Your task to perform on an android device: change notifications settings Image 0: 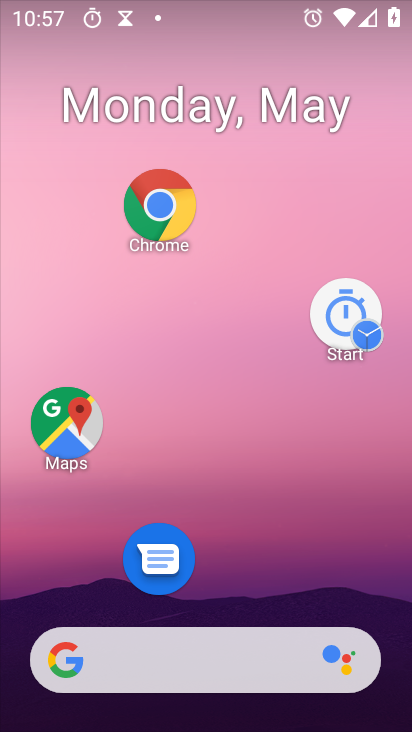
Step 0: click (172, 226)
Your task to perform on an android device: change notifications settings Image 1: 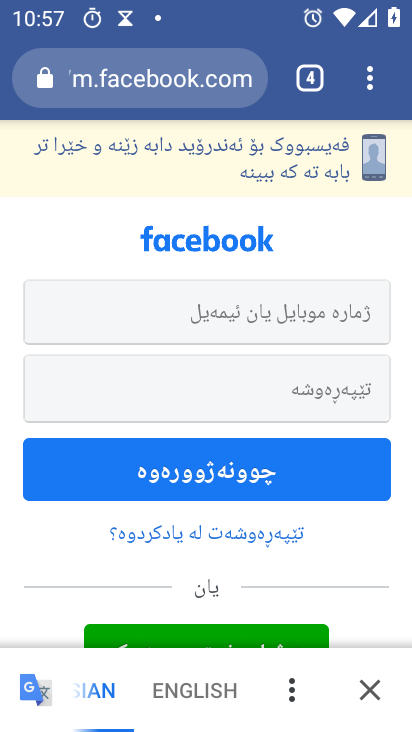
Step 1: press back button
Your task to perform on an android device: change notifications settings Image 2: 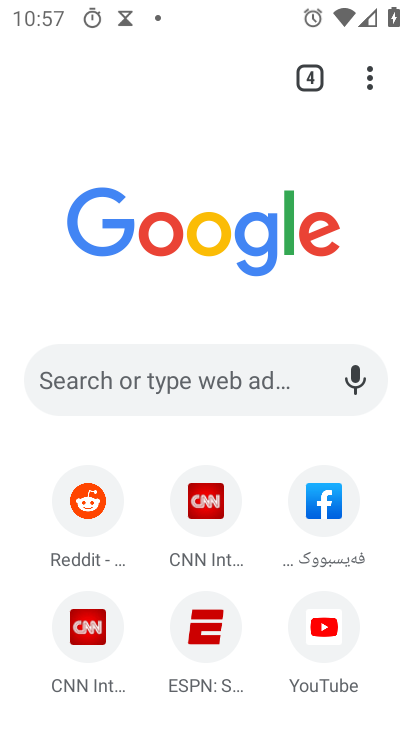
Step 2: click (365, 79)
Your task to perform on an android device: change notifications settings Image 3: 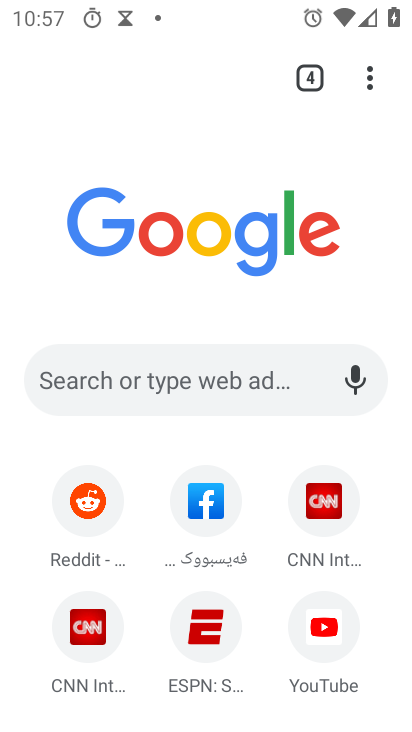
Step 3: drag from (369, 80) to (73, 614)
Your task to perform on an android device: change notifications settings Image 4: 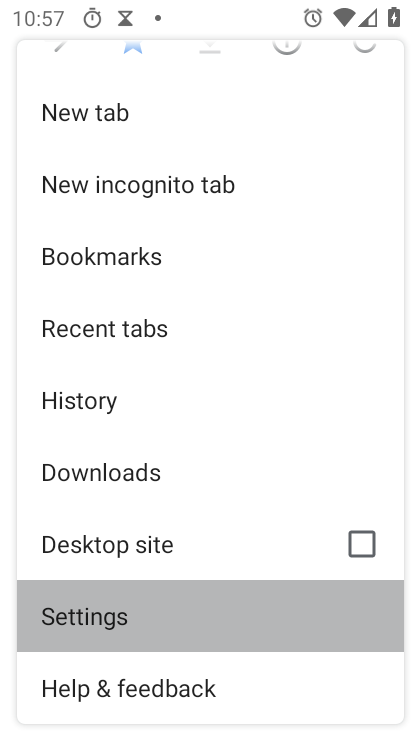
Step 4: click (78, 612)
Your task to perform on an android device: change notifications settings Image 5: 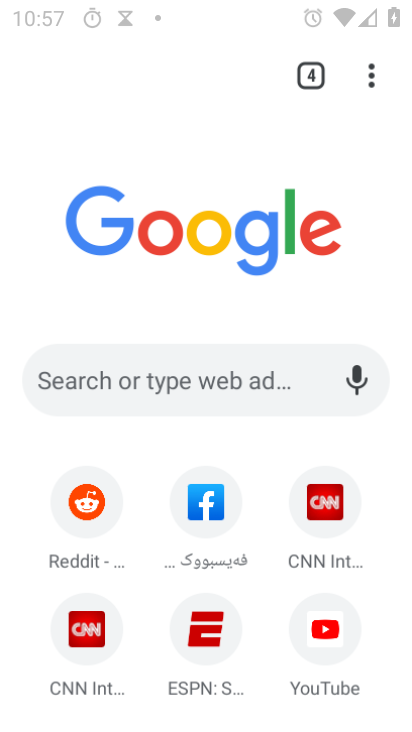
Step 5: click (82, 614)
Your task to perform on an android device: change notifications settings Image 6: 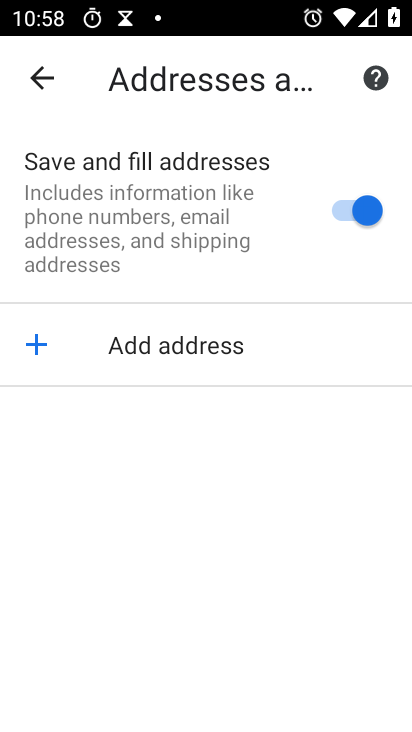
Step 6: click (37, 75)
Your task to perform on an android device: change notifications settings Image 7: 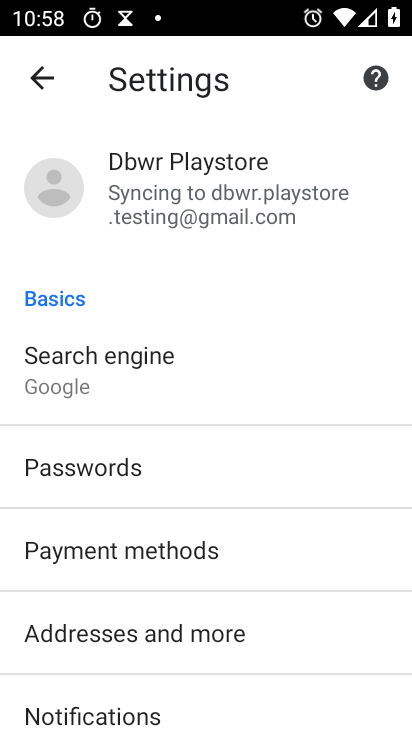
Step 7: drag from (148, 565) to (84, 147)
Your task to perform on an android device: change notifications settings Image 8: 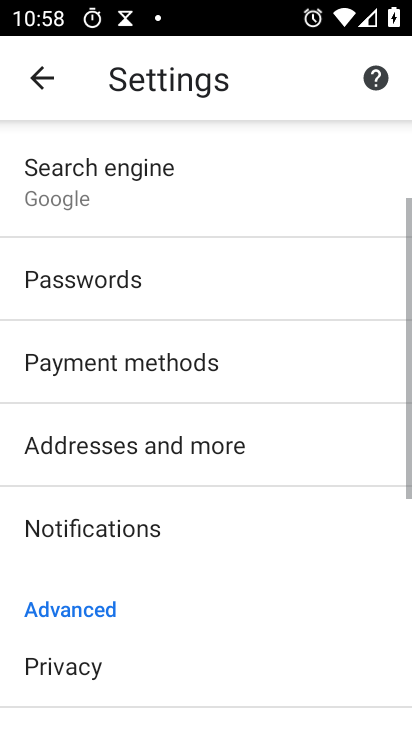
Step 8: drag from (177, 478) to (181, 46)
Your task to perform on an android device: change notifications settings Image 9: 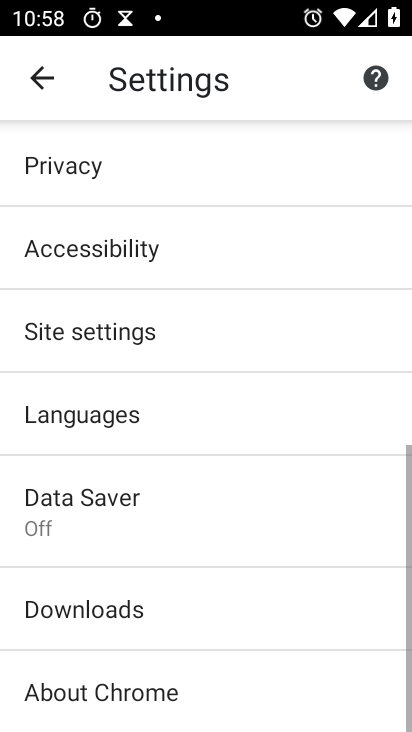
Step 9: drag from (200, 479) to (212, 153)
Your task to perform on an android device: change notifications settings Image 10: 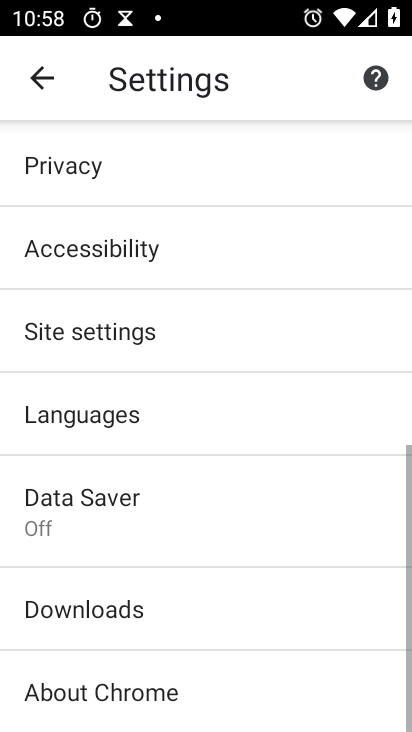
Step 10: drag from (189, 440) to (168, 60)
Your task to perform on an android device: change notifications settings Image 11: 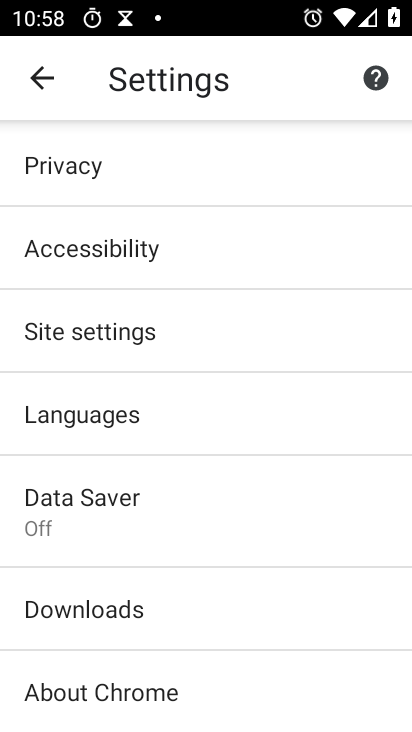
Step 11: click (70, 335)
Your task to perform on an android device: change notifications settings Image 12: 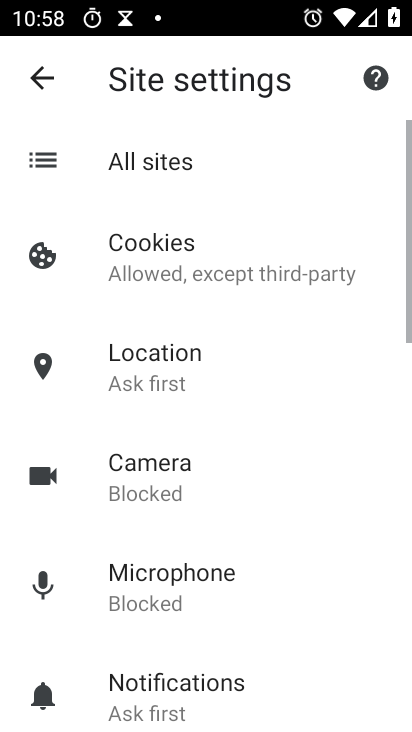
Step 12: click (39, 83)
Your task to perform on an android device: change notifications settings Image 13: 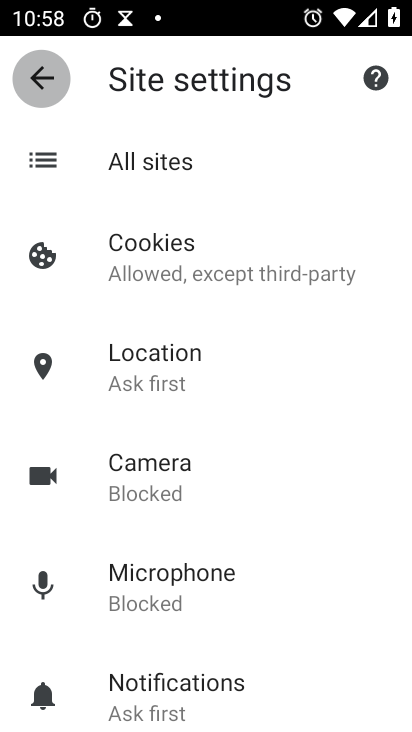
Step 13: click (39, 83)
Your task to perform on an android device: change notifications settings Image 14: 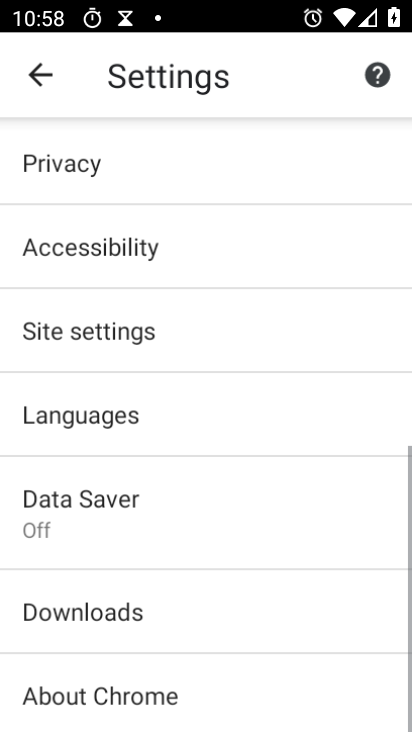
Step 14: click (39, 83)
Your task to perform on an android device: change notifications settings Image 15: 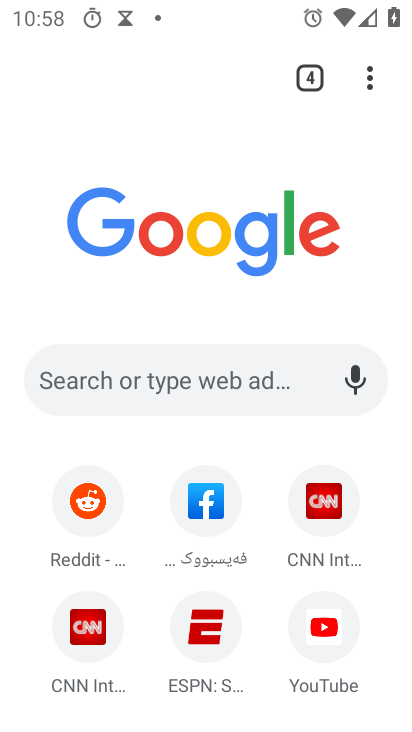
Step 15: press home button
Your task to perform on an android device: change notifications settings Image 16: 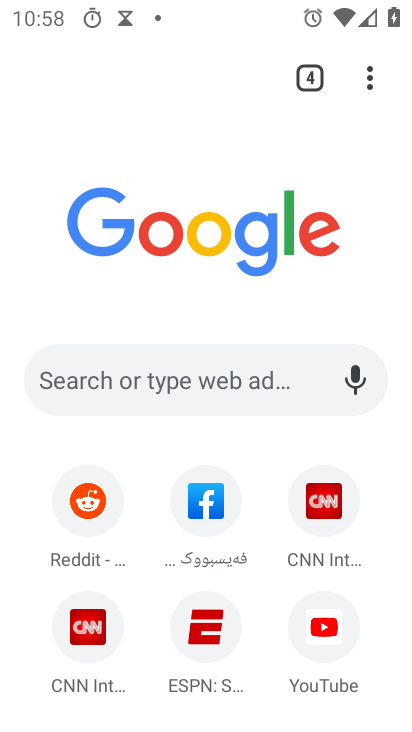
Step 16: press home button
Your task to perform on an android device: change notifications settings Image 17: 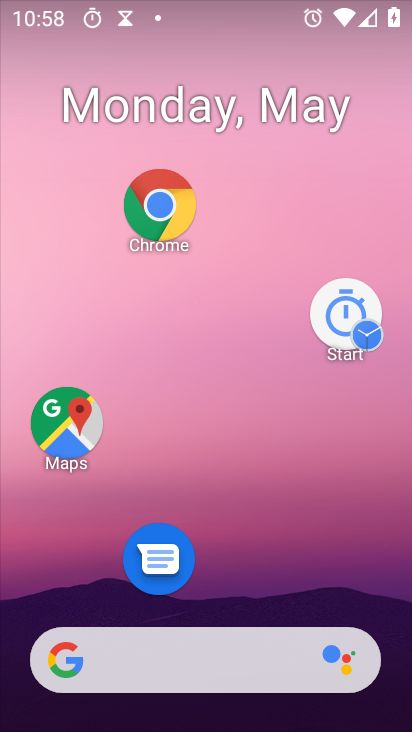
Step 17: drag from (233, 692) to (164, 152)
Your task to perform on an android device: change notifications settings Image 18: 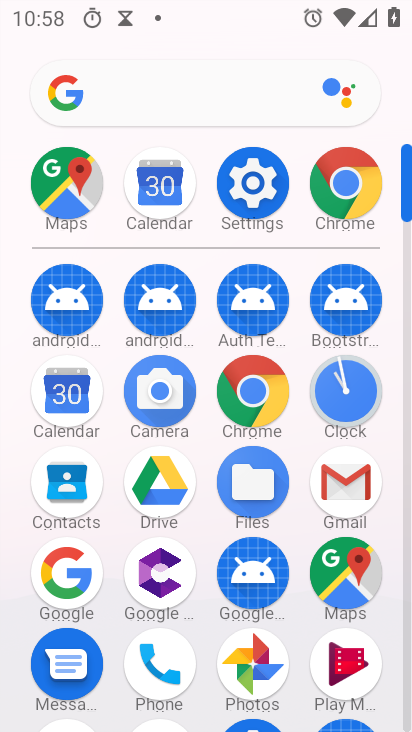
Step 18: click (246, 178)
Your task to perform on an android device: change notifications settings Image 19: 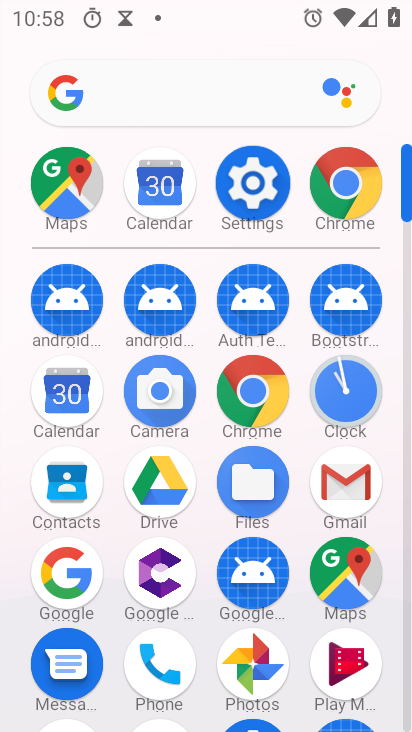
Step 19: click (258, 172)
Your task to perform on an android device: change notifications settings Image 20: 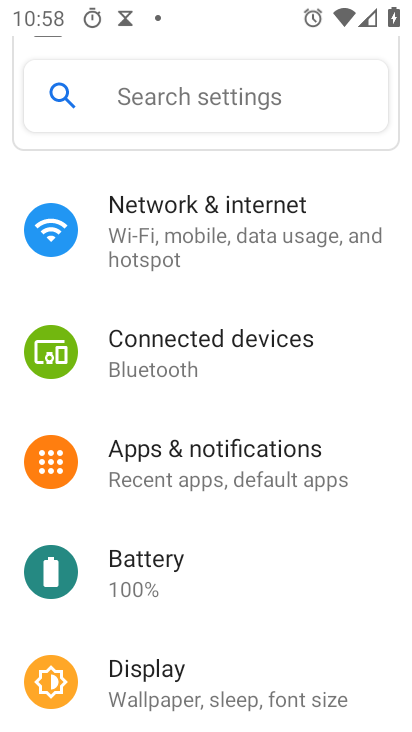
Step 20: click (198, 465)
Your task to perform on an android device: change notifications settings Image 21: 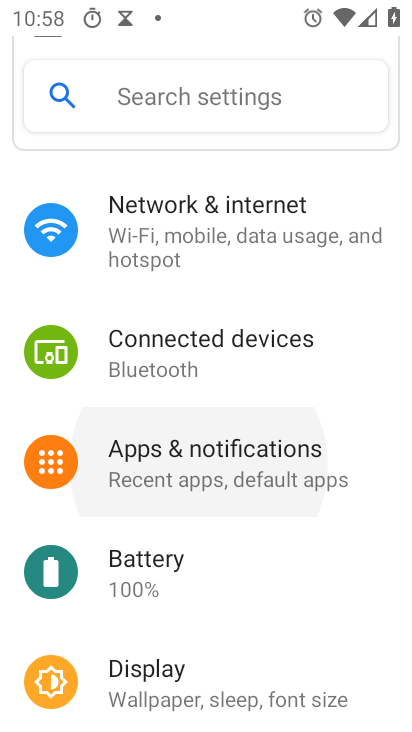
Step 21: click (199, 465)
Your task to perform on an android device: change notifications settings Image 22: 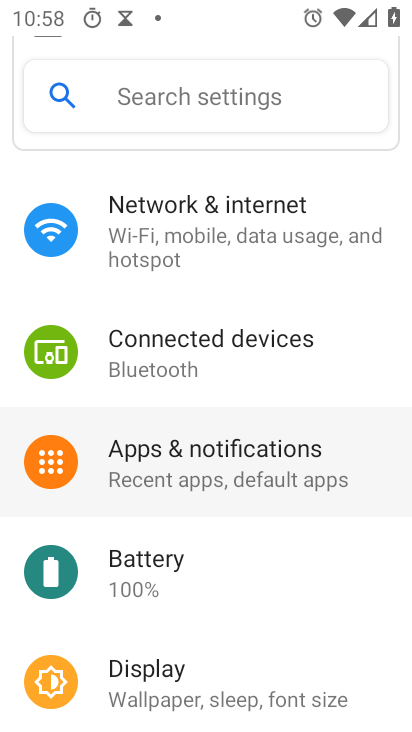
Step 22: click (200, 465)
Your task to perform on an android device: change notifications settings Image 23: 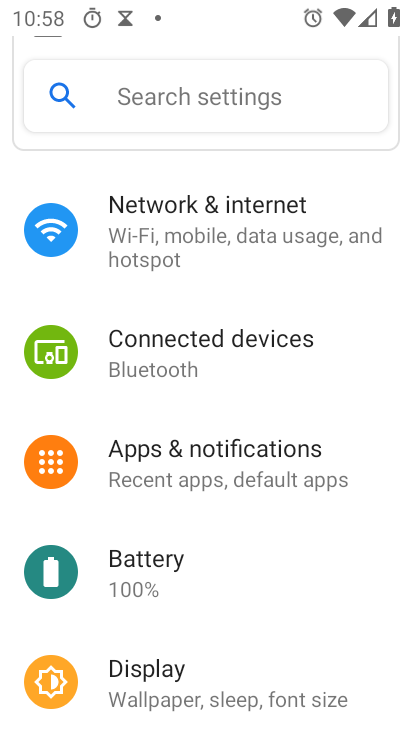
Step 23: click (221, 464)
Your task to perform on an android device: change notifications settings Image 24: 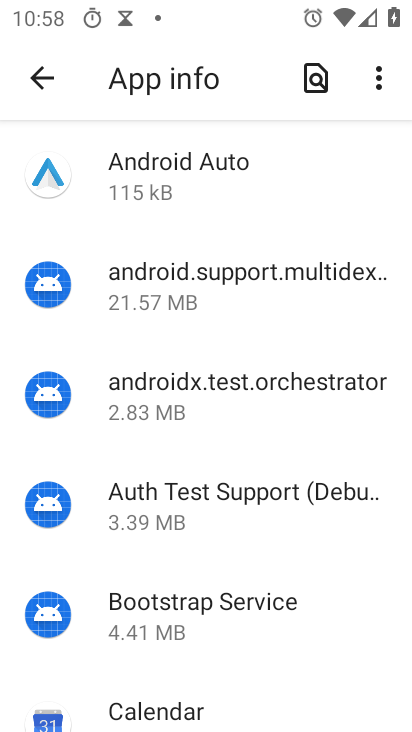
Step 24: click (43, 70)
Your task to perform on an android device: change notifications settings Image 25: 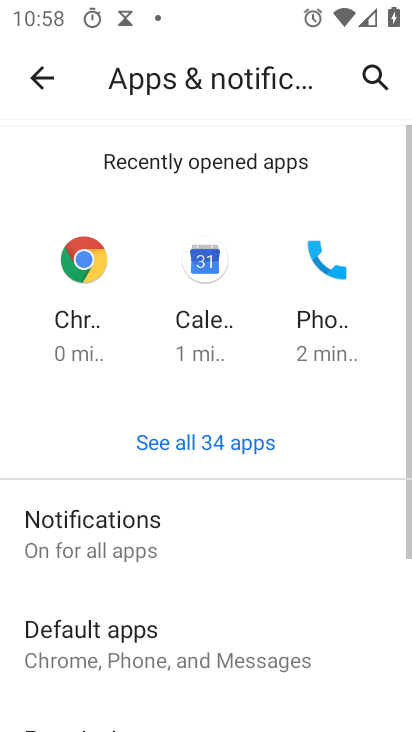
Step 25: click (112, 539)
Your task to perform on an android device: change notifications settings Image 26: 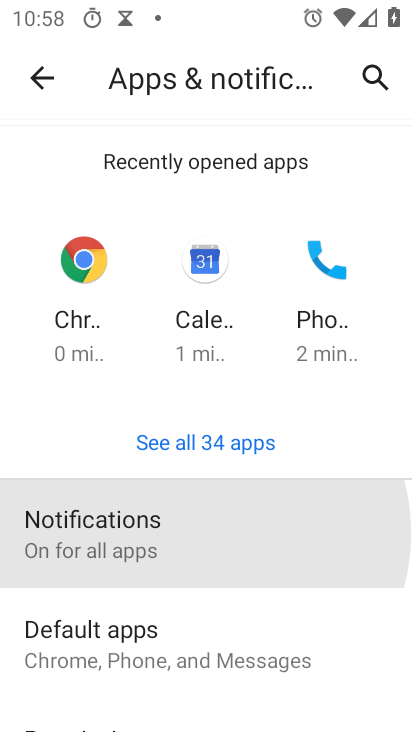
Step 26: click (123, 532)
Your task to perform on an android device: change notifications settings Image 27: 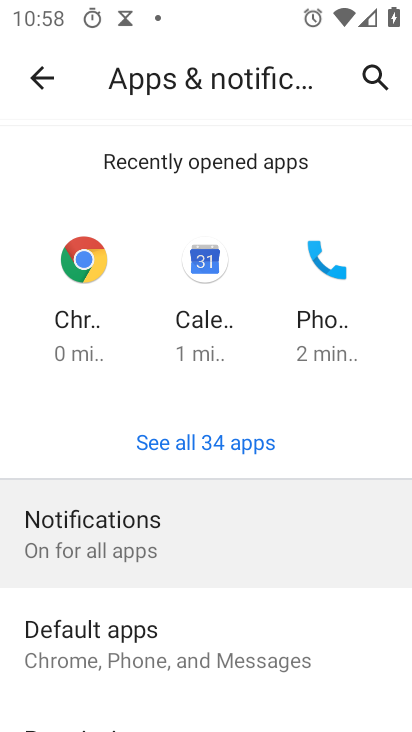
Step 27: click (123, 532)
Your task to perform on an android device: change notifications settings Image 28: 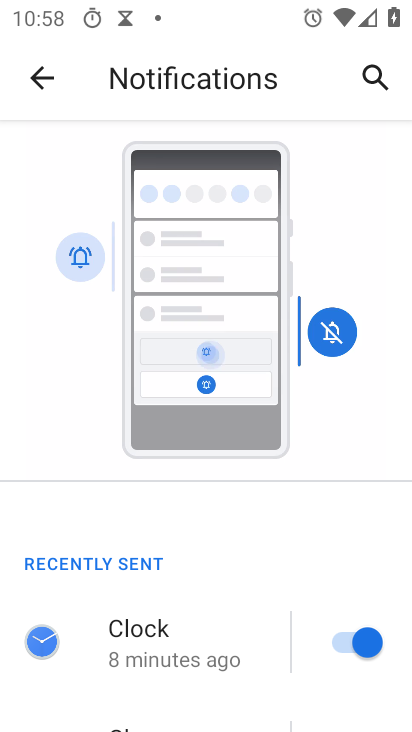
Step 28: drag from (199, 564) to (110, 172)
Your task to perform on an android device: change notifications settings Image 29: 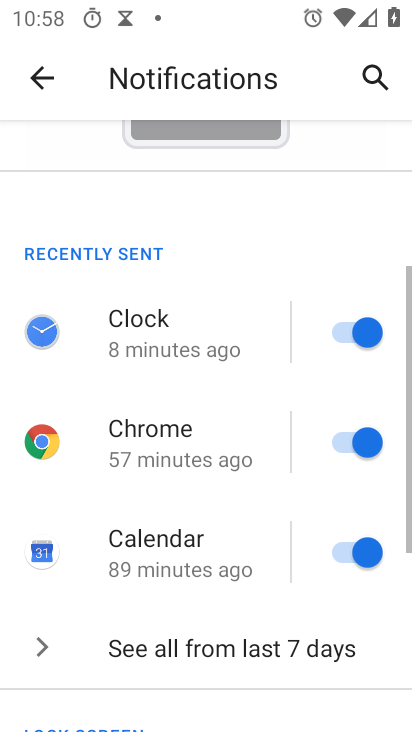
Step 29: click (141, 85)
Your task to perform on an android device: change notifications settings Image 30: 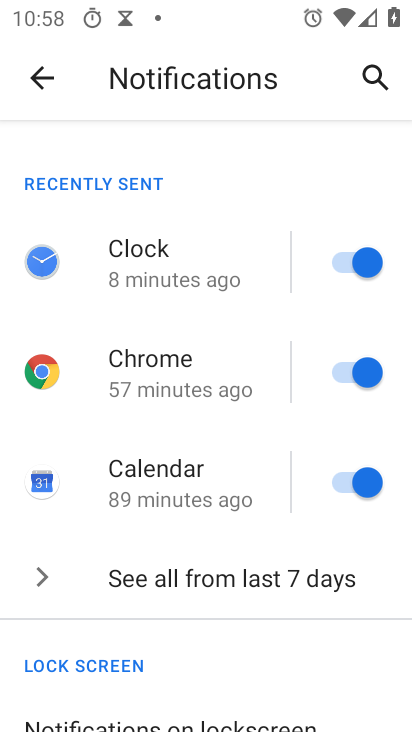
Step 30: drag from (166, 445) to (132, 138)
Your task to perform on an android device: change notifications settings Image 31: 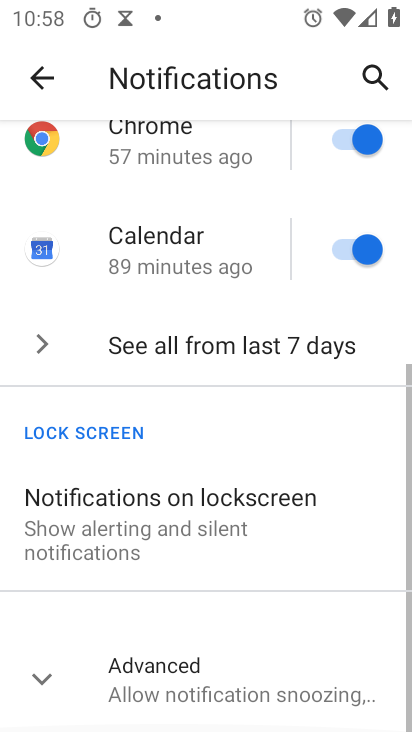
Step 31: drag from (175, 452) to (144, 173)
Your task to perform on an android device: change notifications settings Image 32: 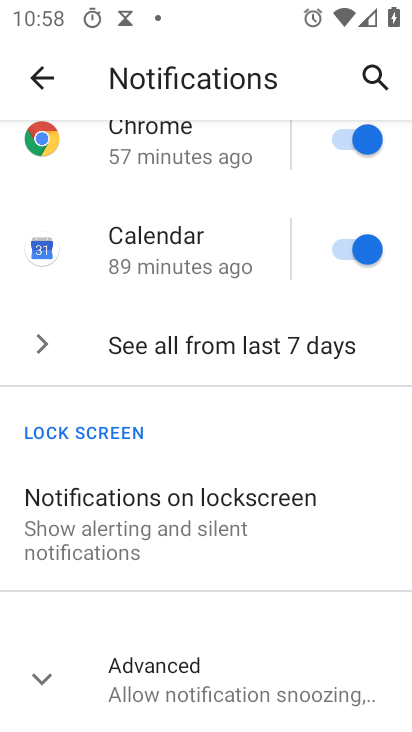
Step 32: click (185, 673)
Your task to perform on an android device: change notifications settings Image 33: 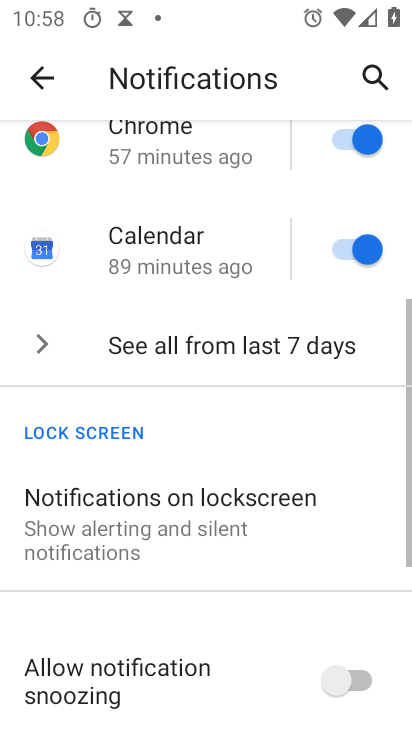
Step 33: drag from (180, 502) to (180, 192)
Your task to perform on an android device: change notifications settings Image 34: 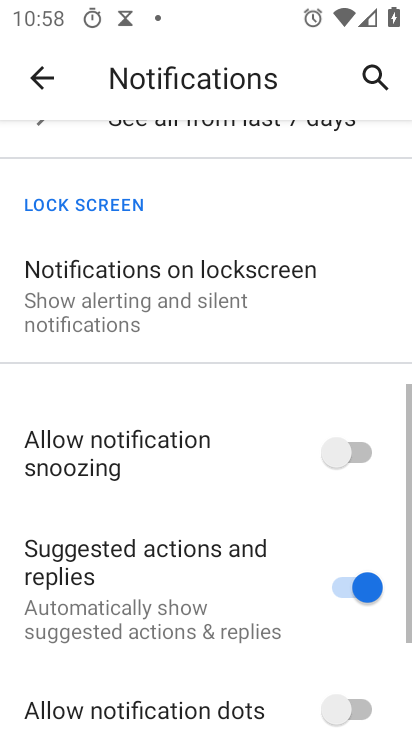
Step 34: drag from (232, 513) to (217, 235)
Your task to perform on an android device: change notifications settings Image 35: 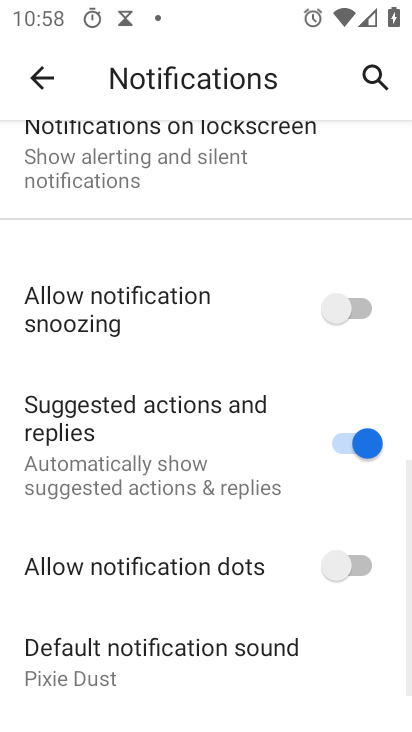
Step 35: drag from (235, 416) to (249, 192)
Your task to perform on an android device: change notifications settings Image 36: 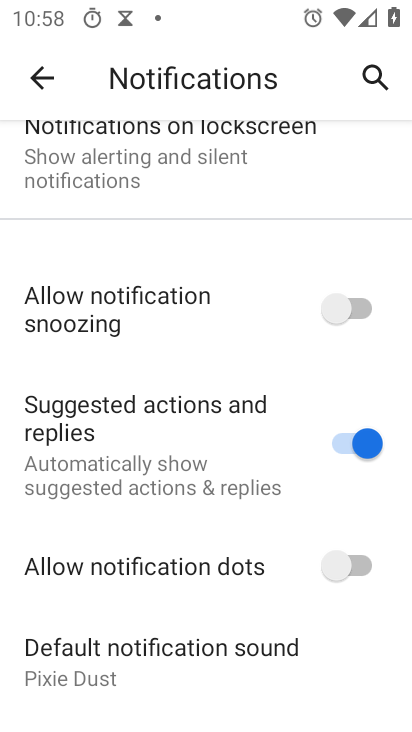
Step 36: drag from (147, 272) to (175, 459)
Your task to perform on an android device: change notifications settings Image 37: 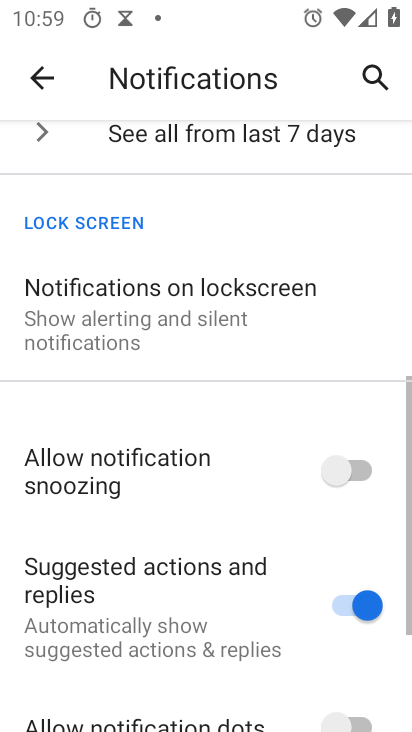
Step 37: drag from (153, 293) to (190, 510)
Your task to perform on an android device: change notifications settings Image 38: 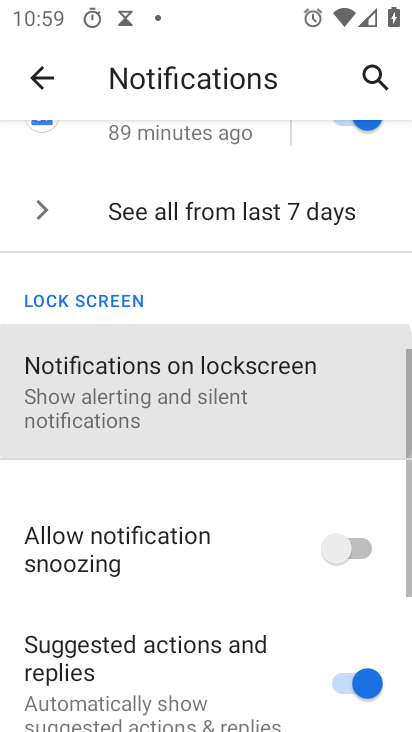
Step 38: drag from (181, 322) to (212, 529)
Your task to perform on an android device: change notifications settings Image 39: 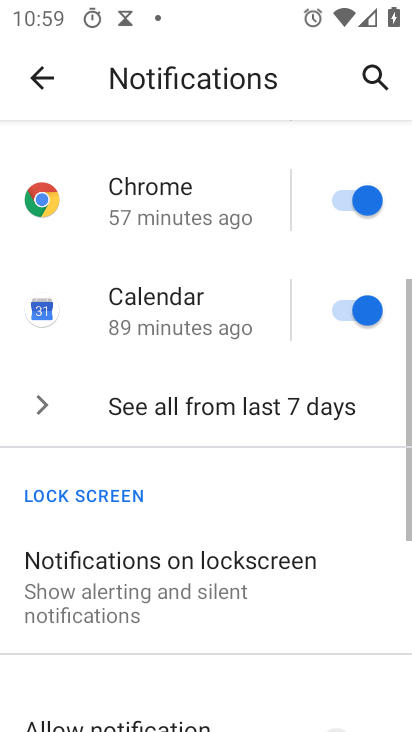
Step 39: drag from (183, 274) to (225, 607)
Your task to perform on an android device: change notifications settings Image 40: 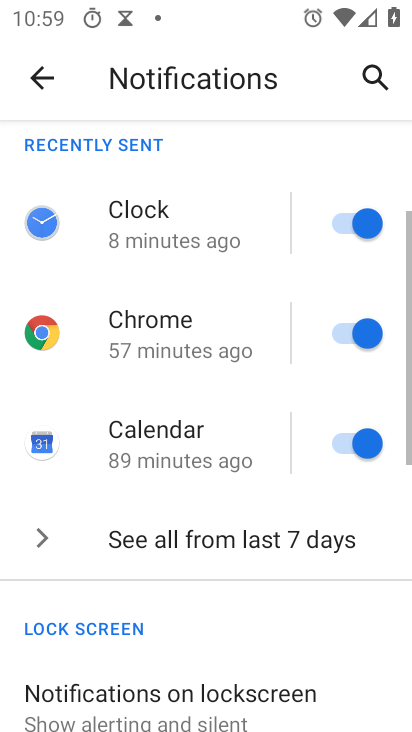
Step 40: drag from (200, 293) to (238, 517)
Your task to perform on an android device: change notifications settings Image 41: 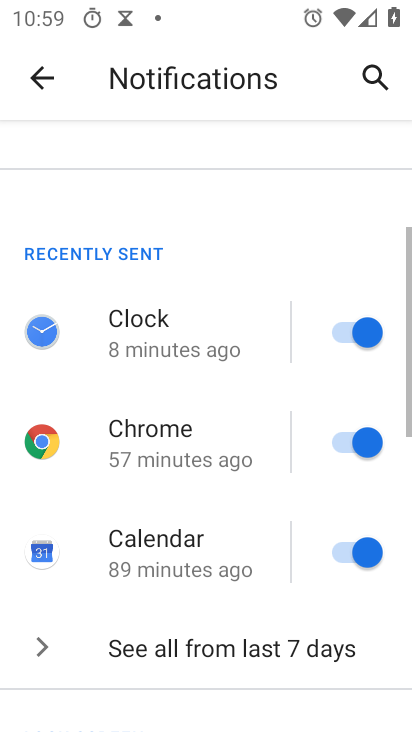
Step 41: drag from (284, 220) to (283, 496)
Your task to perform on an android device: change notifications settings Image 42: 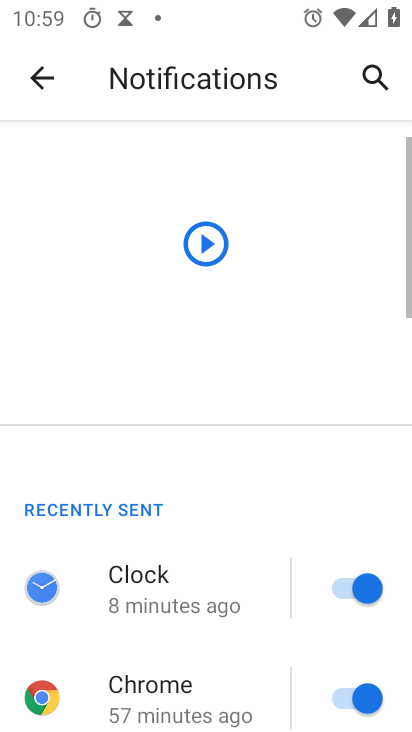
Step 42: drag from (137, 247) to (128, 565)
Your task to perform on an android device: change notifications settings Image 43: 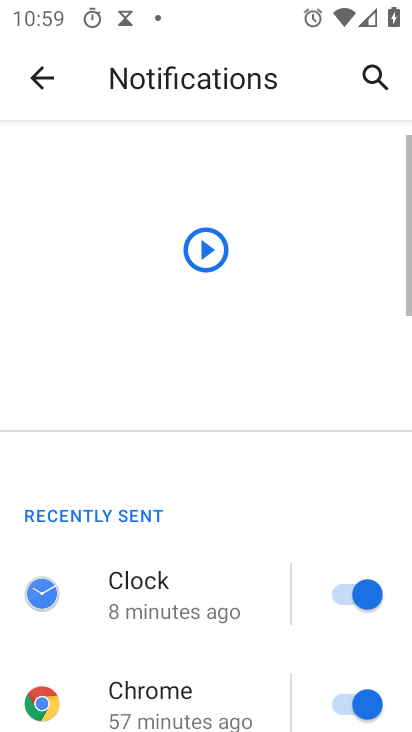
Step 43: drag from (50, 162) to (89, 445)
Your task to perform on an android device: change notifications settings Image 44: 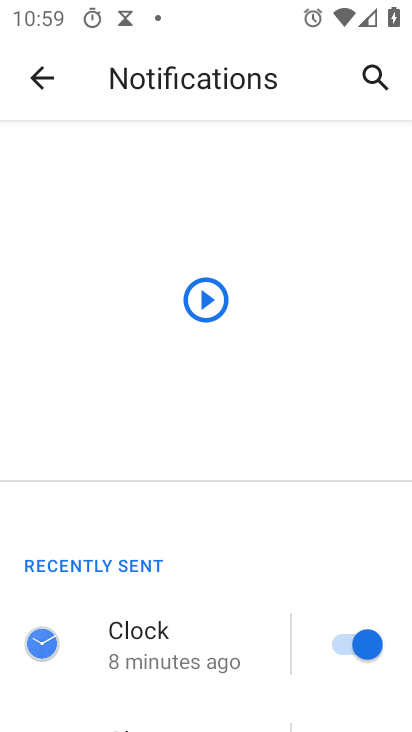
Step 44: drag from (214, 509) to (194, 178)
Your task to perform on an android device: change notifications settings Image 45: 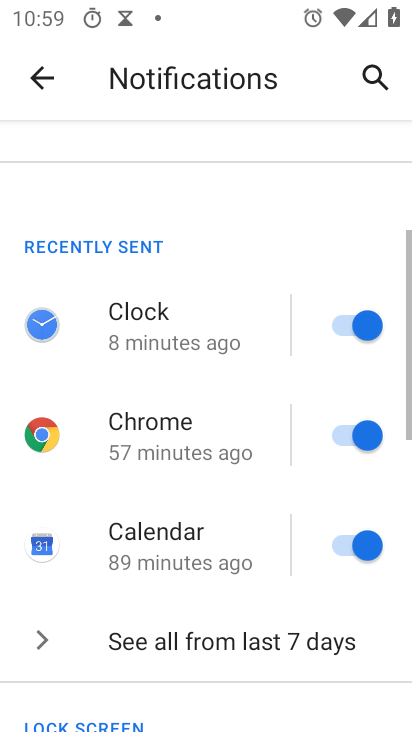
Step 45: click (217, 126)
Your task to perform on an android device: change notifications settings Image 46: 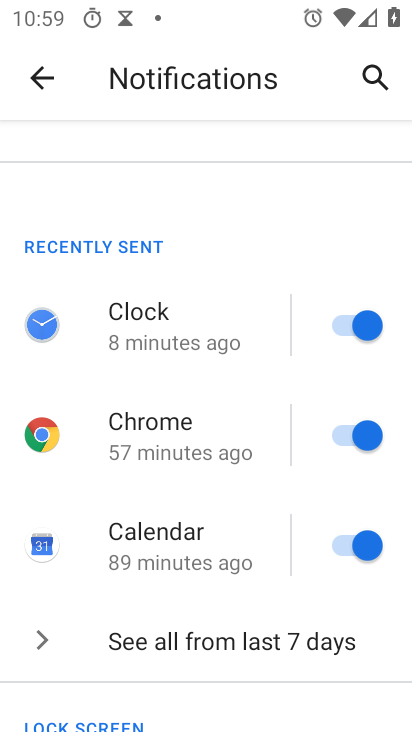
Step 46: drag from (228, 366) to (213, 86)
Your task to perform on an android device: change notifications settings Image 47: 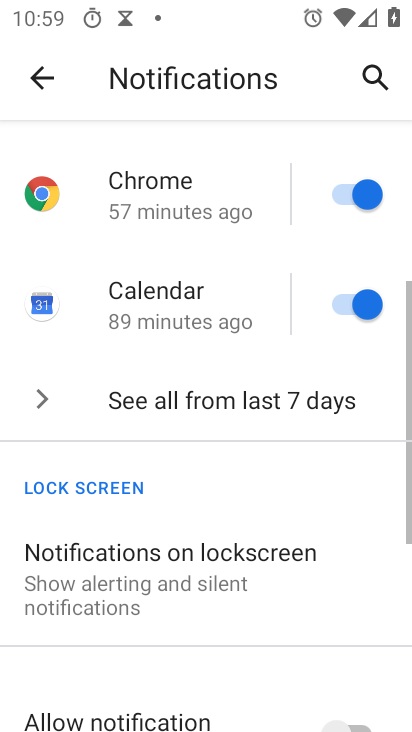
Step 47: drag from (222, 453) to (175, 80)
Your task to perform on an android device: change notifications settings Image 48: 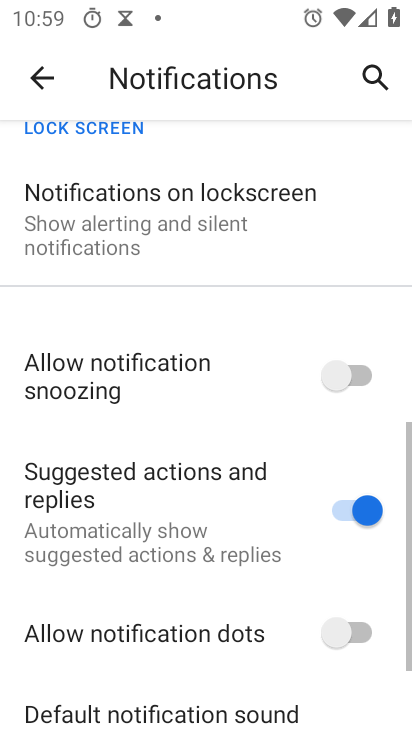
Step 48: drag from (188, 429) to (123, 242)
Your task to perform on an android device: change notifications settings Image 49: 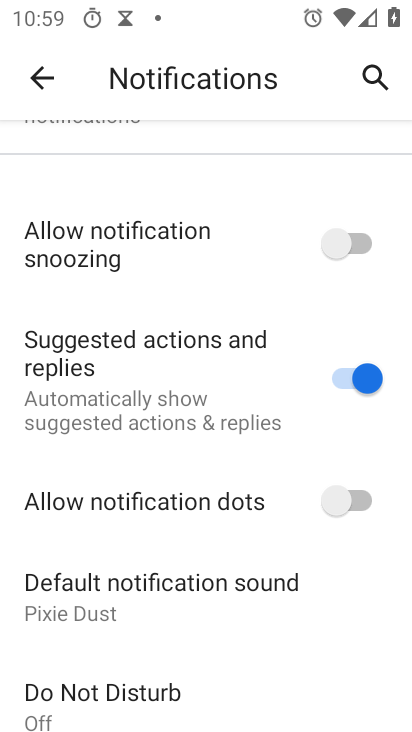
Step 49: click (335, 242)
Your task to perform on an android device: change notifications settings Image 50: 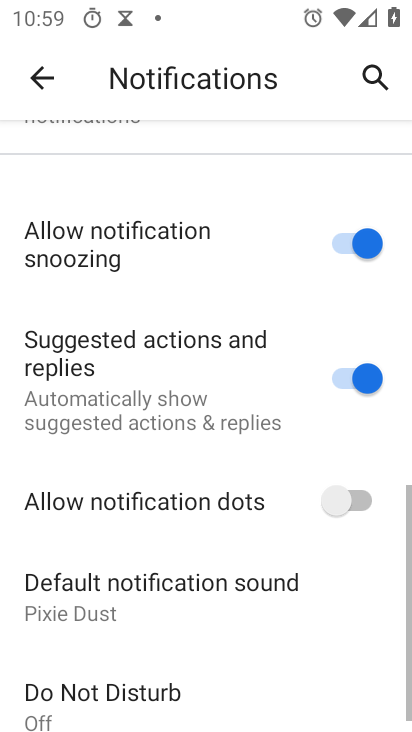
Step 50: click (377, 378)
Your task to perform on an android device: change notifications settings Image 51: 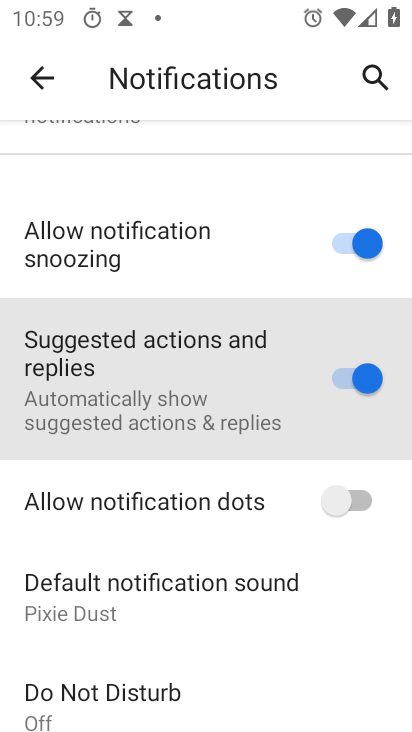
Step 51: click (364, 369)
Your task to perform on an android device: change notifications settings Image 52: 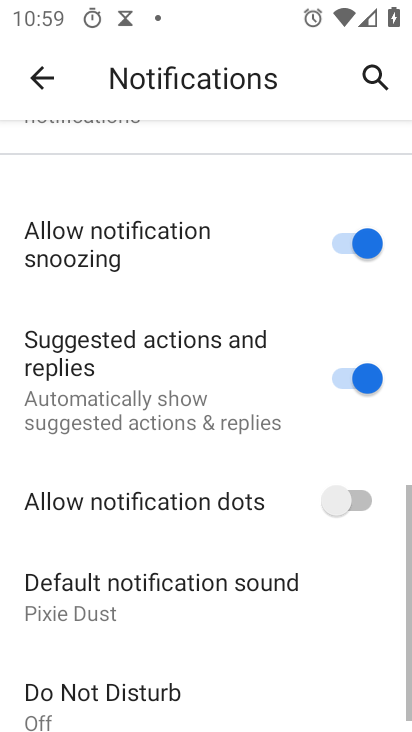
Step 52: click (341, 488)
Your task to perform on an android device: change notifications settings Image 53: 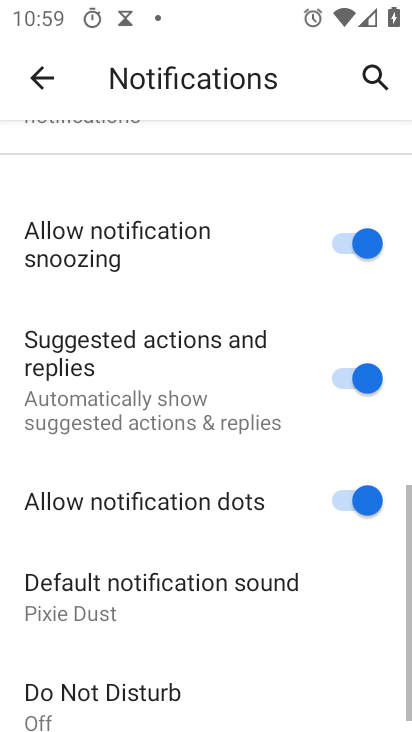
Step 53: click (364, 366)
Your task to perform on an android device: change notifications settings Image 54: 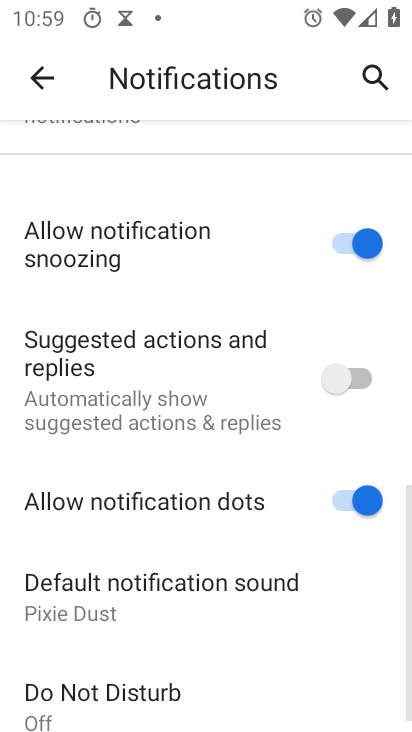
Step 54: task complete